Your task to perform on an android device: toggle airplane mode Image 0: 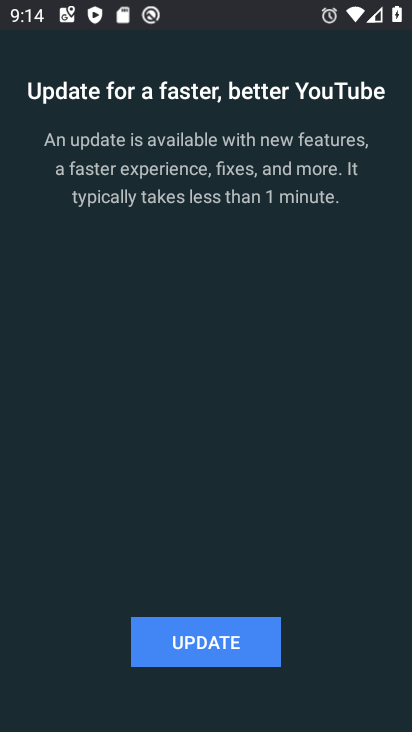
Step 0: press back button
Your task to perform on an android device: toggle airplane mode Image 1: 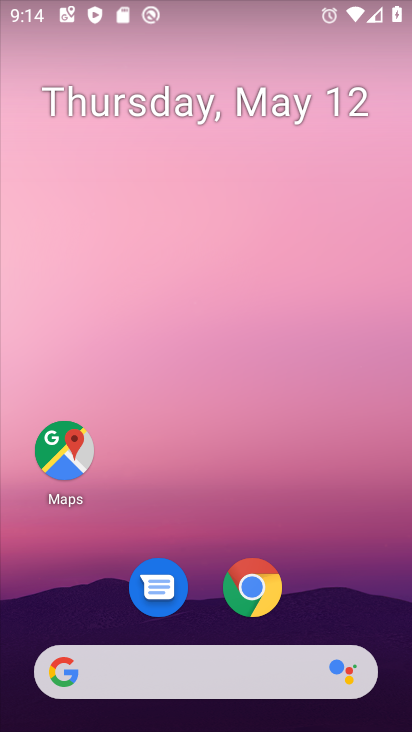
Step 1: drag from (333, 616) to (286, 292)
Your task to perform on an android device: toggle airplane mode Image 2: 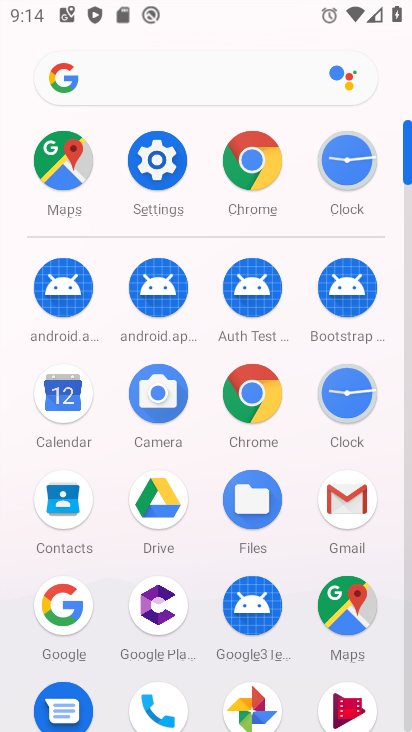
Step 2: click (158, 169)
Your task to perform on an android device: toggle airplane mode Image 3: 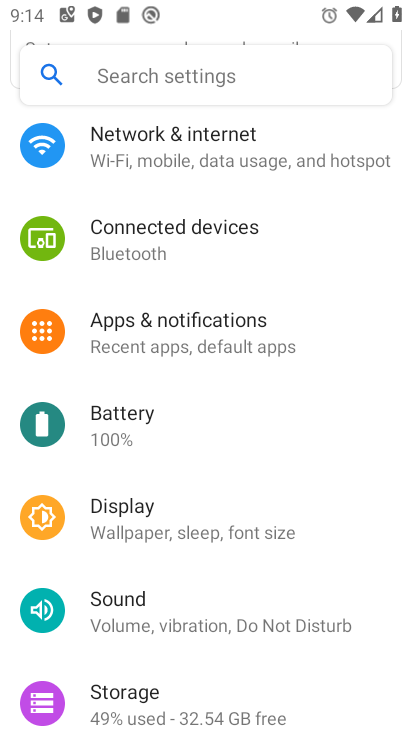
Step 3: click (215, 143)
Your task to perform on an android device: toggle airplane mode Image 4: 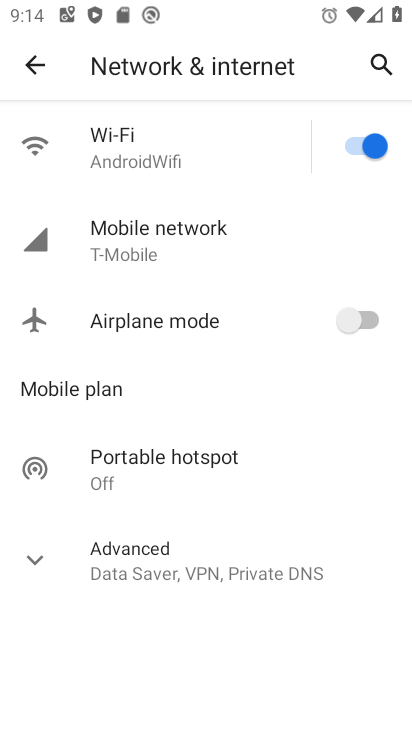
Step 4: click (357, 318)
Your task to perform on an android device: toggle airplane mode Image 5: 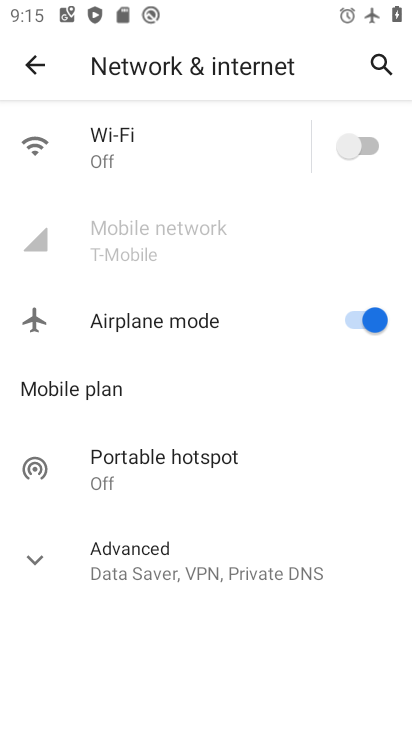
Step 5: task complete